Your task to perform on an android device: Open ESPN.com Image 0: 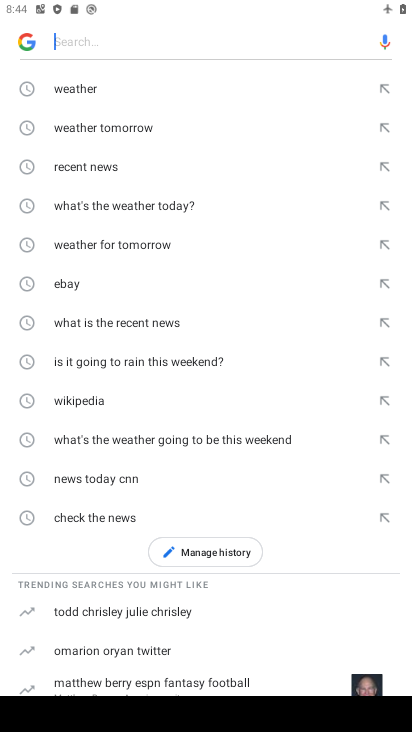
Step 0: press home button
Your task to perform on an android device: Open ESPN.com Image 1: 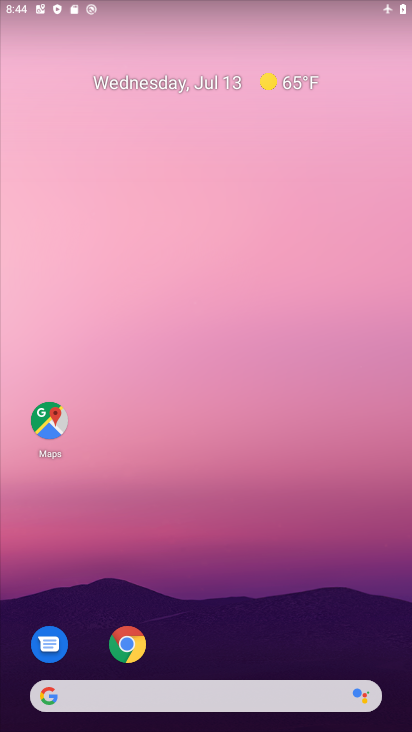
Step 1: drag from (232, 580) to (137, 134)
Your task to perform on an android device: Open ESPN.com Image 2: 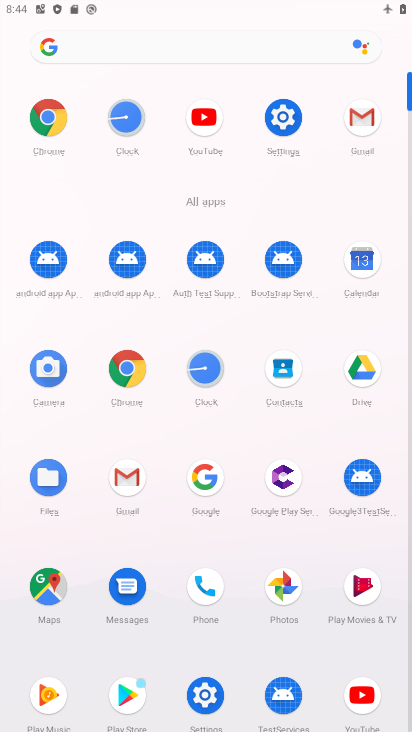
Step 2: click (126, 386)
Your task to perform on an android device: Open ESPN.com Image 3: 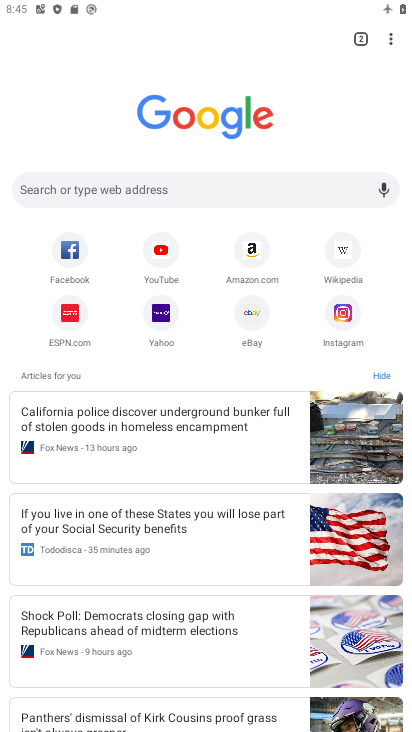
Step 3: click (72, 312)
Your task to perform on an android device: Open ESPN.com Image 4: 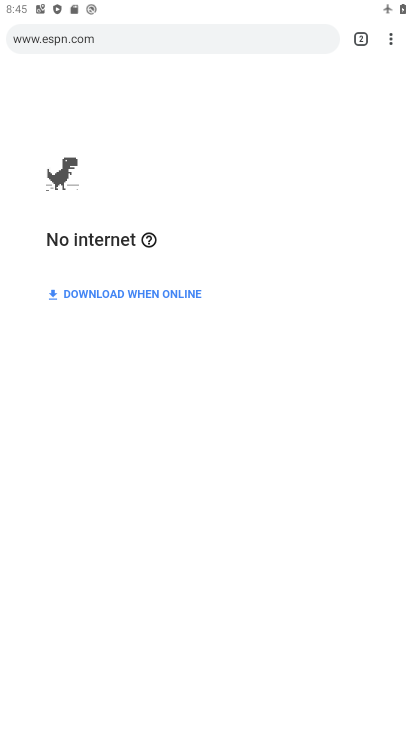
Step 4: task complete